Your task to perform on an android device: turn on the 12-hour format for clock Image 0: 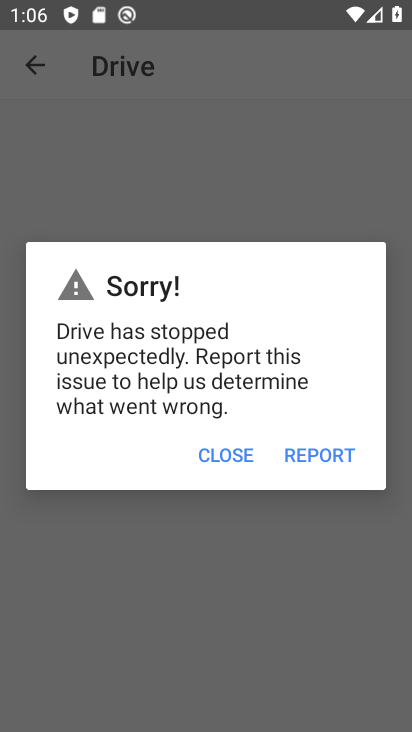
Step 0: press home button
Your task to perform on an android device: turn on the 12-hour format for clock Image 1: 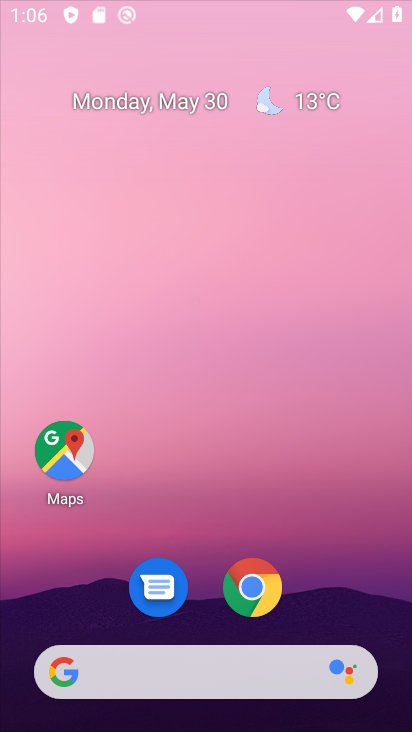
Step 1: drag from (334, 475) to (200, 0)
Your task to perform on an android device: turn on the 12-hour format for clock Image 2: 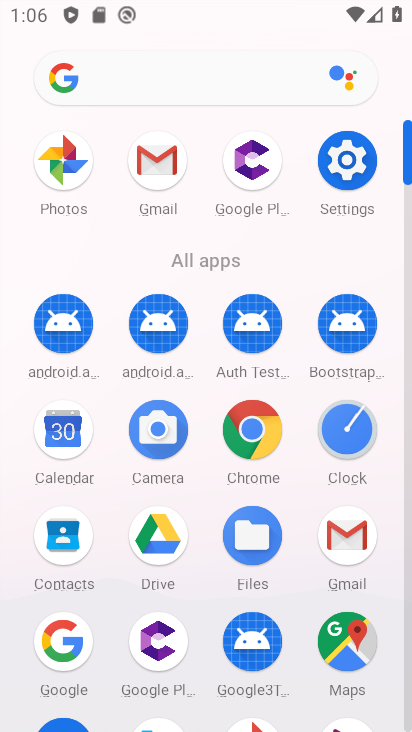
Step 2: click (345, 445)
Your task to perform on an android device: turn on the 12-hour format for clock Image 3: 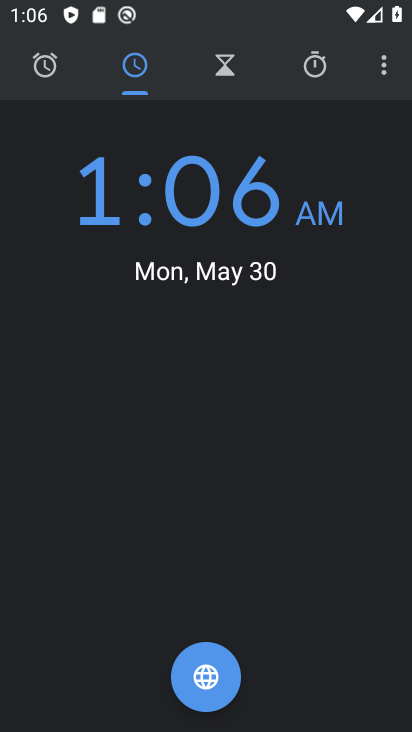
Step 3: click (378, 69)
Your task to perform on an android device: turn on the 12-hour format for clock Image 4: 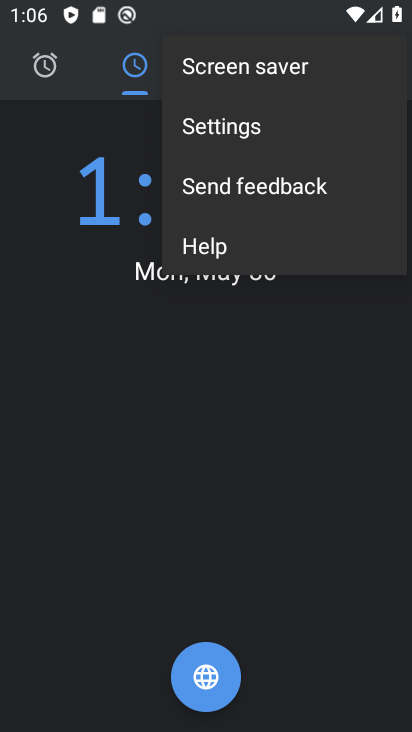
Step 4: click (225, 137)
Your task to perform on an android device: turn on the 12-hour format for clock Image 5: 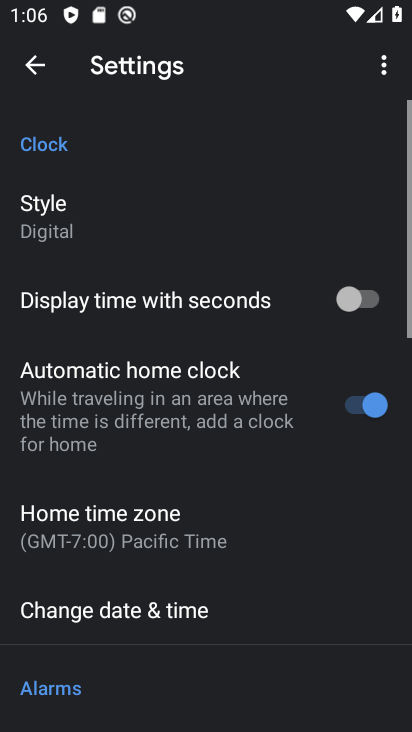
Step 5: drag from (235, 613) to (239, 194)
Your task to perform on an android device: turn on the 12-hour format for clock Image 6: 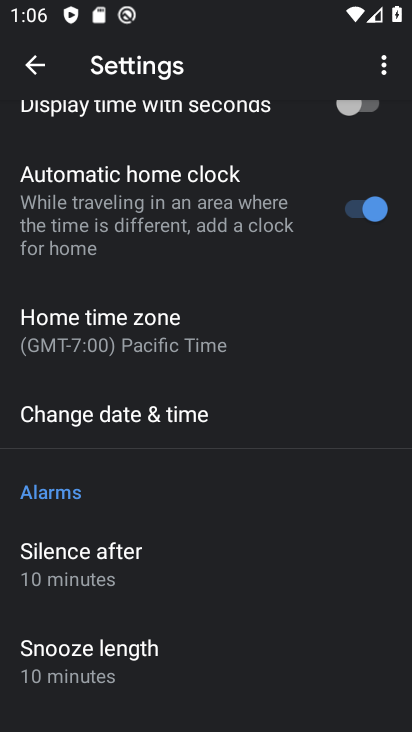
Step 6: click (201, 413)
Your task to perform on an android device: turn on the 12-hour format for clock Image 7: 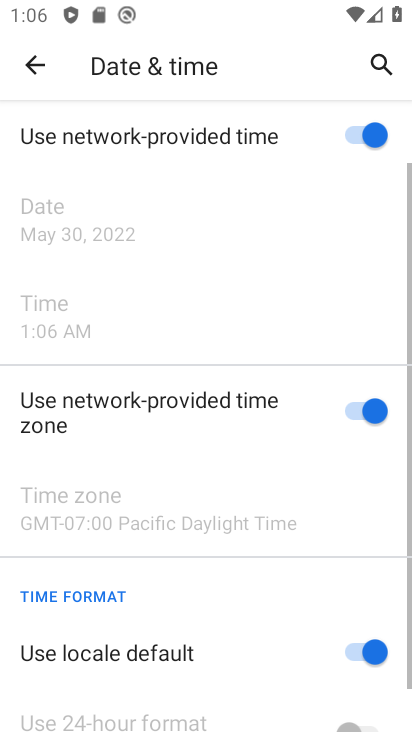
Step 7: task complete